Your task to perform on an android device: move a message to another label in the gmail app Image 0: 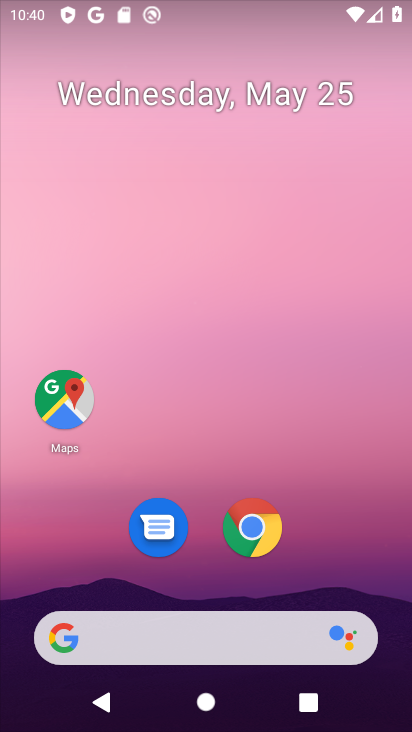
Step 0: drag from (299, 291) to (0, 397)
Your task to perform on an android device: move a message to another label in the gmail app Image 1: 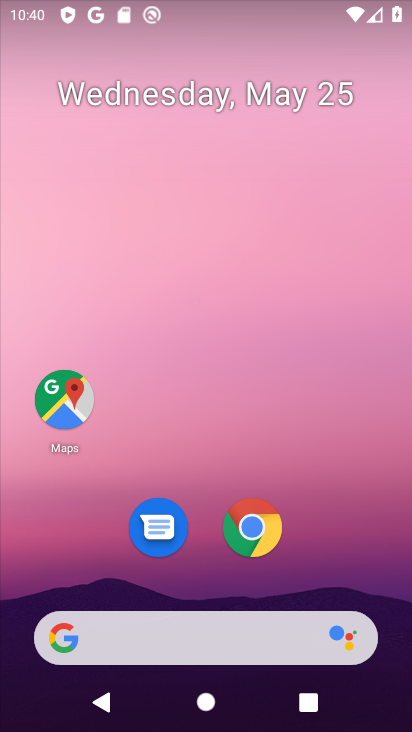
Step 1: drag from (229, 554) to (243, 15)
Your task to perform on an android device: move a message to another label in the gmail app Image 2: 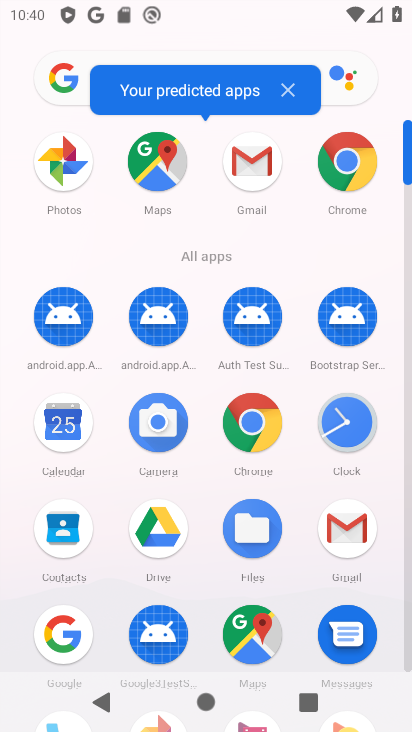
Step 2: click (247, 174)
Your task to perform on an android device: move a message to another label in the gmail app Image 3: 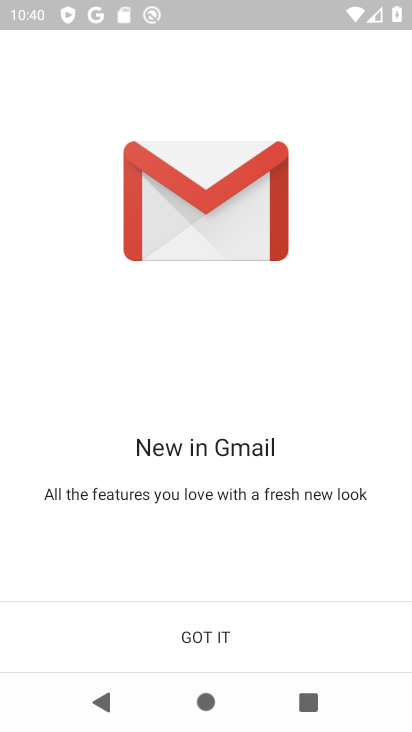
Step 3: click (98, 641)
Your task to perform on an android device: move a message to another label in the gmail app Image 4: 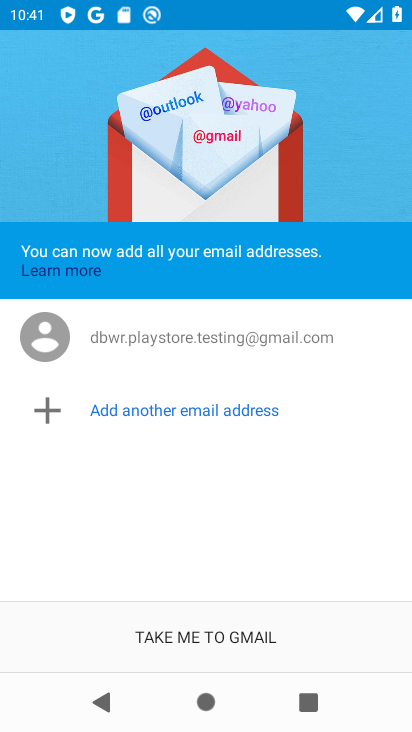
Step 4: click (172, 625)
Your task to perform on an android device: move a message to another label in the gmail app Image 5: 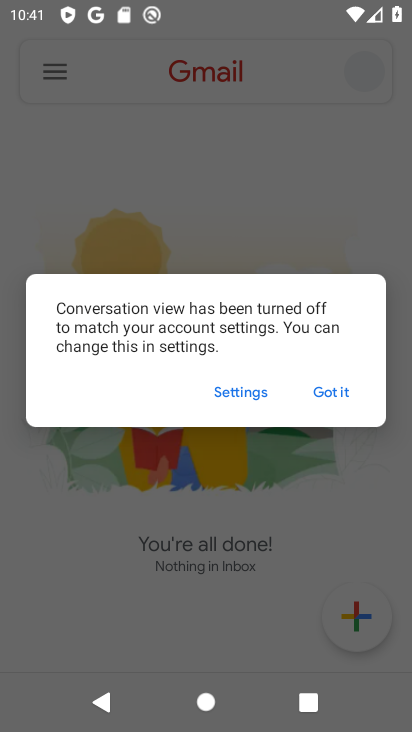
Step 5: click (320, 396)
Your task to perform on an android device: move a message to another label in the gmail app Image 6: 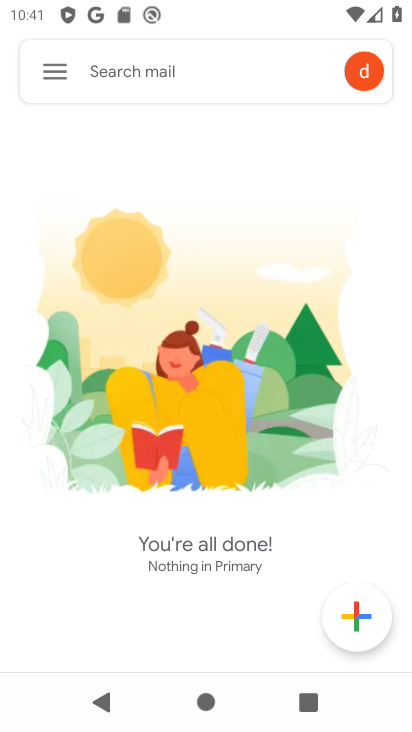
Step 6: click (47, 79)
Your task to perform on an android device: move a message to another label in the gmail app Image 7: 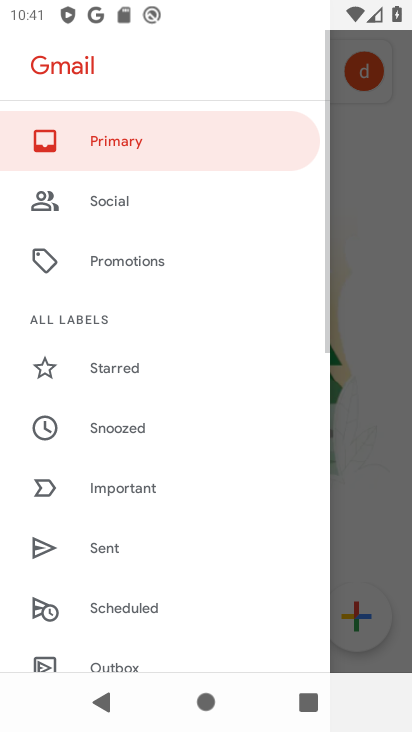
Step 7: drag from (117, 620) to (59, 176)
Your task to perform on an android device: move a message to another label in the gmail app Image 8: 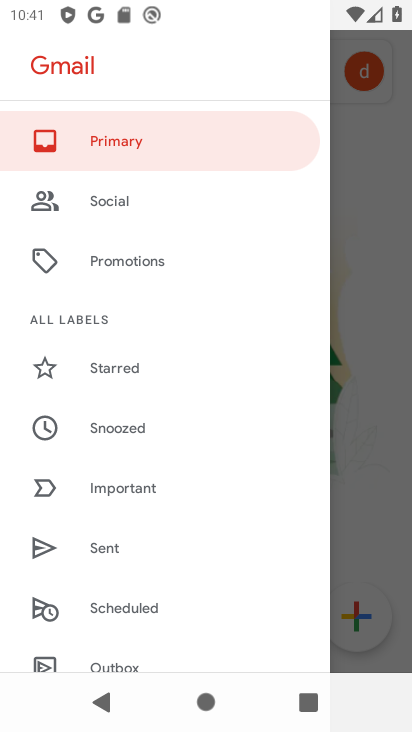
Step 8: drag from (71, 552) to (165, 185)
Your task to perform on an android device: move a message to another label in the gmail app Image 9: 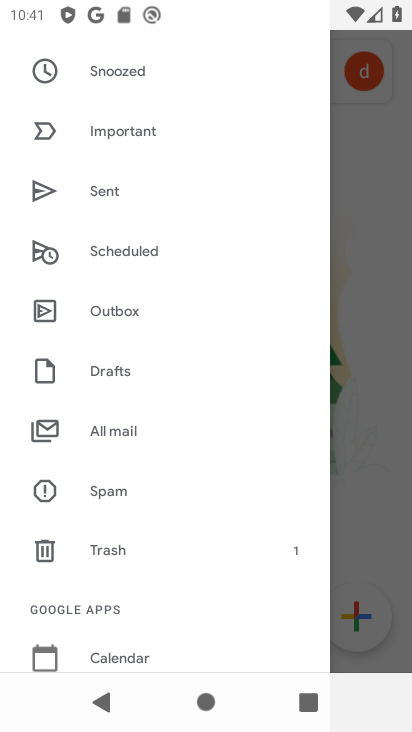
Step 9: click (140, 438)
Your task to perform on an android device: move a message to another label in the gmail app Image 10: 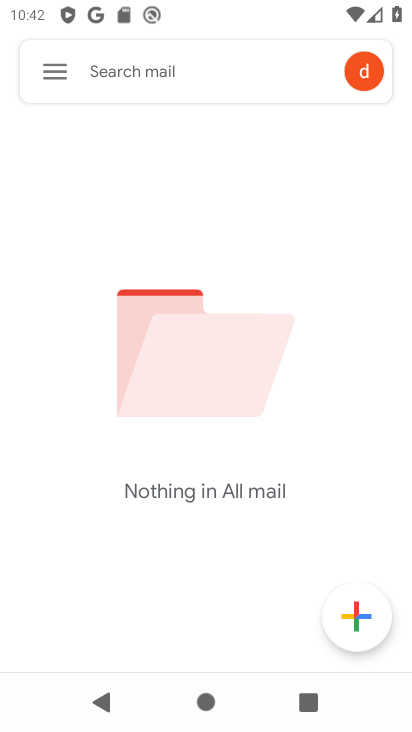
Step 10: task complete